Your task to perform on an android device: Open the calendar app, open the side menu, and click the "Day" option Image 0: 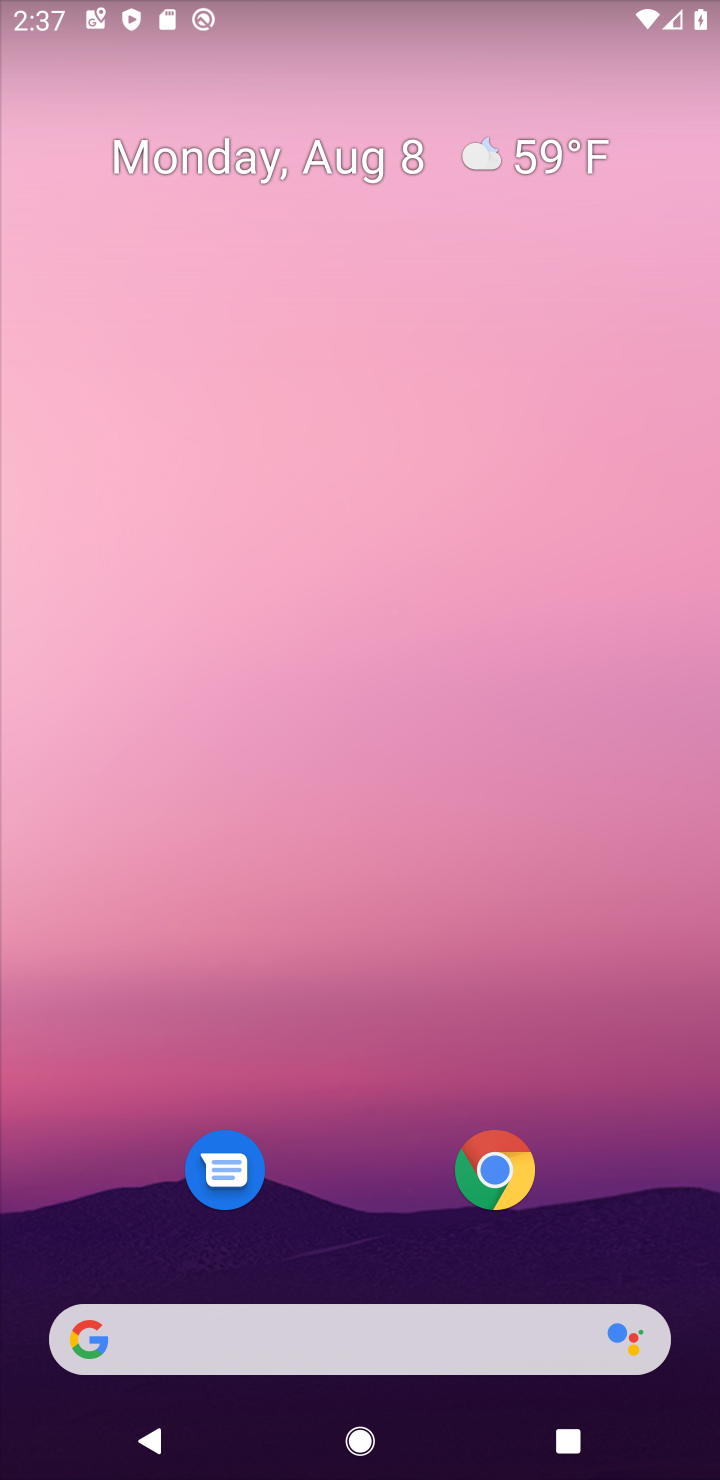
Step 0: drag from (348, 1142) to (435, 277)
Your task to perform on an android device: Open the calendar app, open the side menu, and click the "Day" option Image 1: 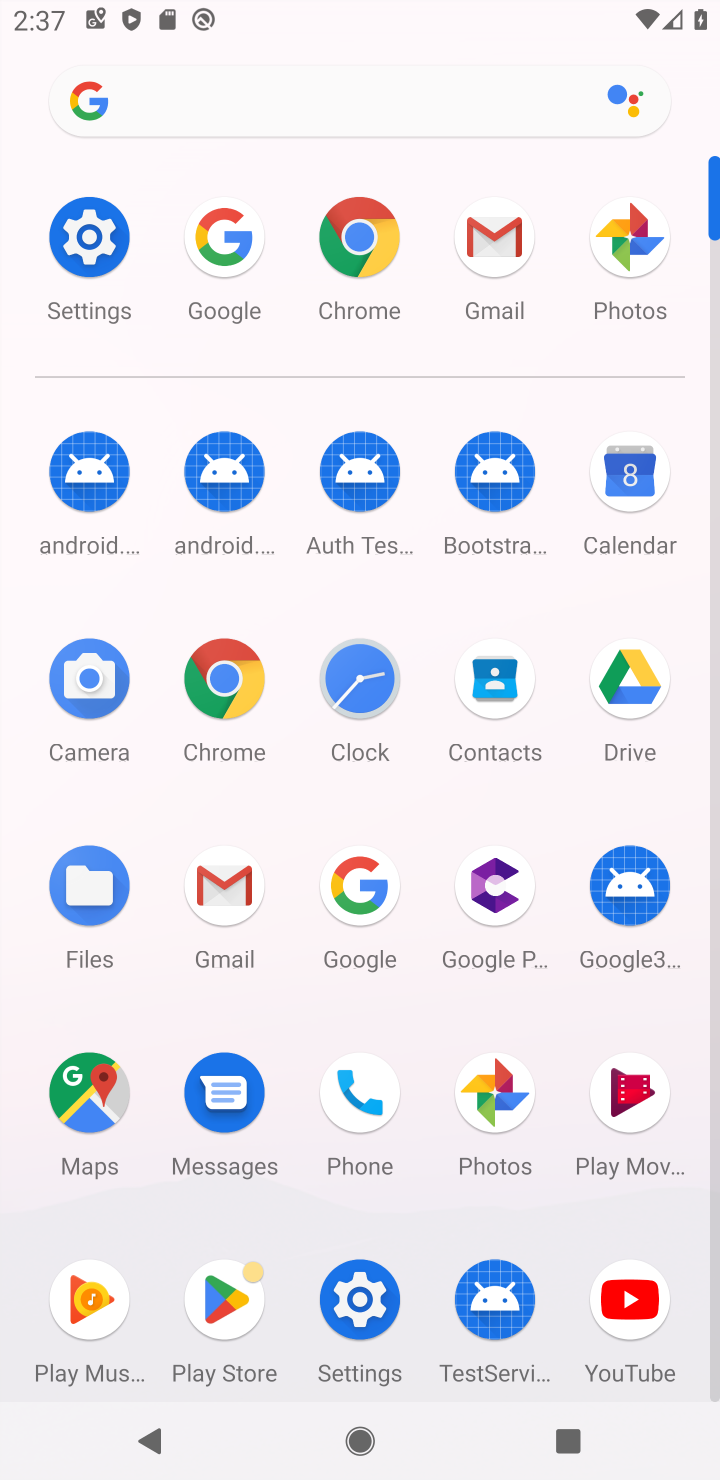
Step 1: click (610, 480)
Your task to perform on an android device: Open the calendar app, open the side menu, and click the "Day" option Image 2: 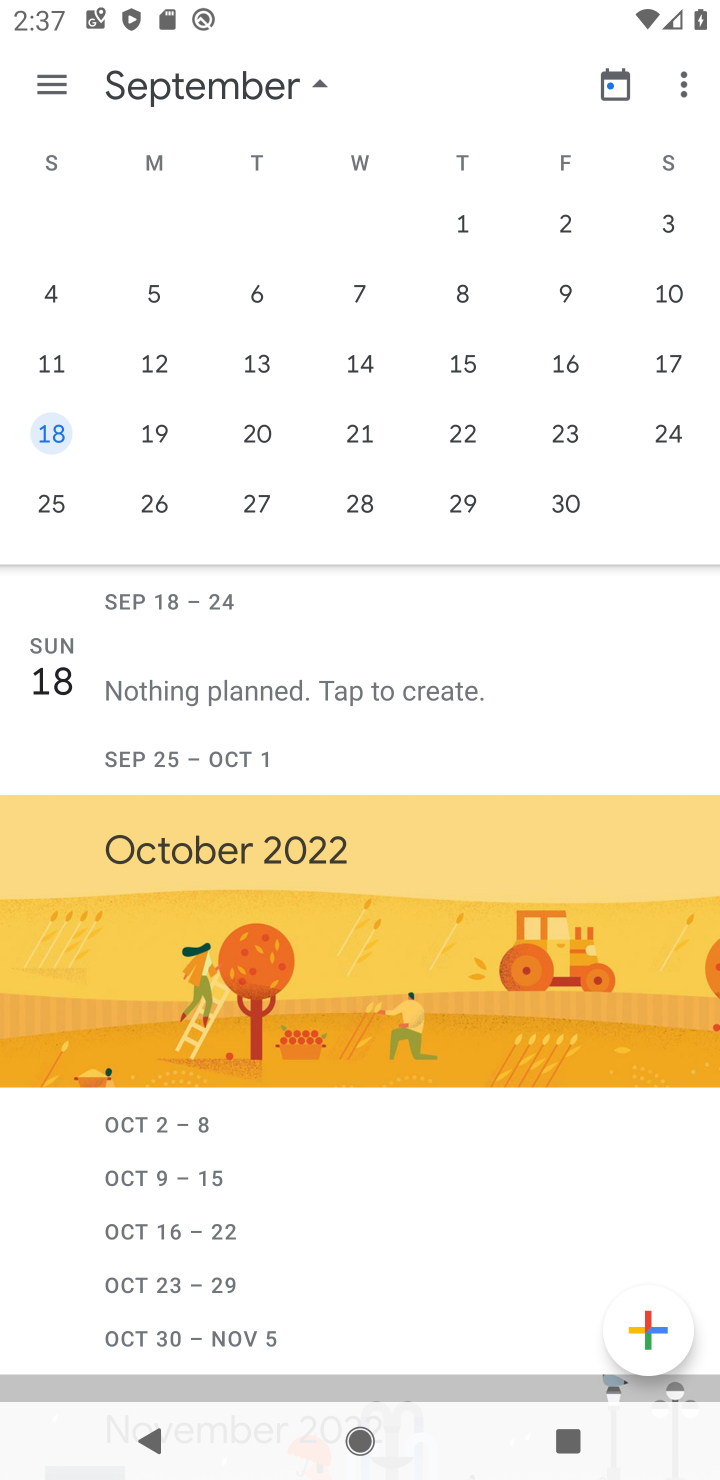
Step 2: click (45, 95)
Your task to perform on an android device: Open the calendar app, open the side menu, and click the "Day" option Image 3: 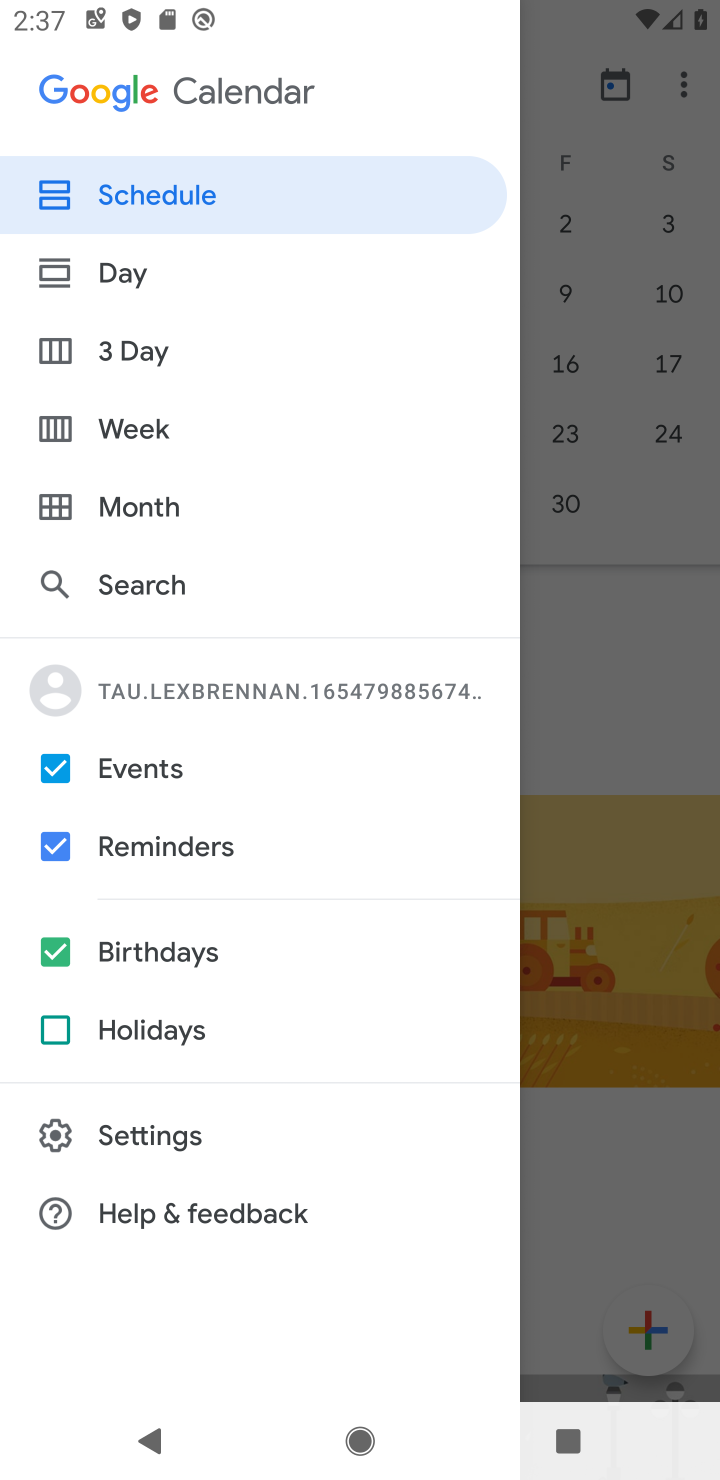
Step 3: click (107, 251)
Your task to perform on an android device: Open the calendar app, open the side menu, and click the "Day" option Image 4: 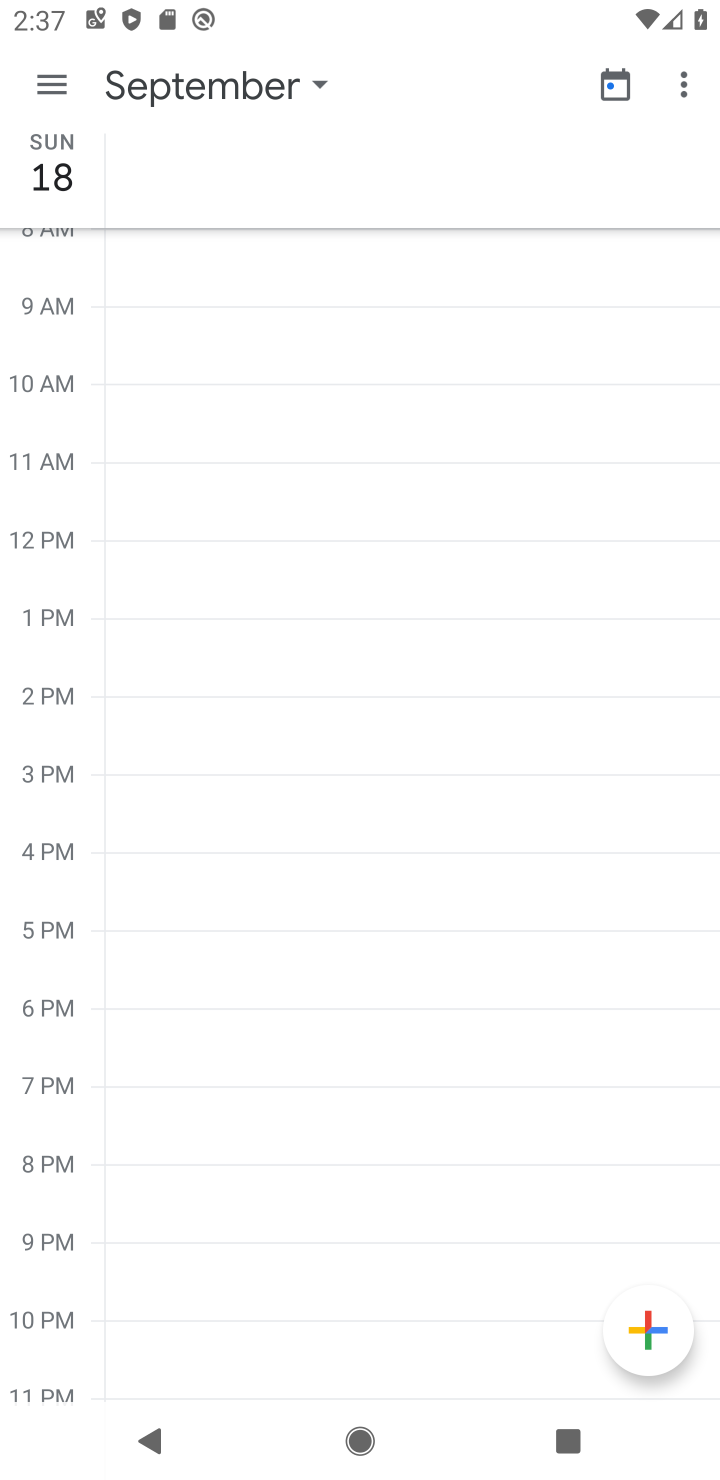
Step 4: click (55, 88)
Your task to perform on an android device: Open the calendar app, open the side menu, and click the "Day" option Image 5: 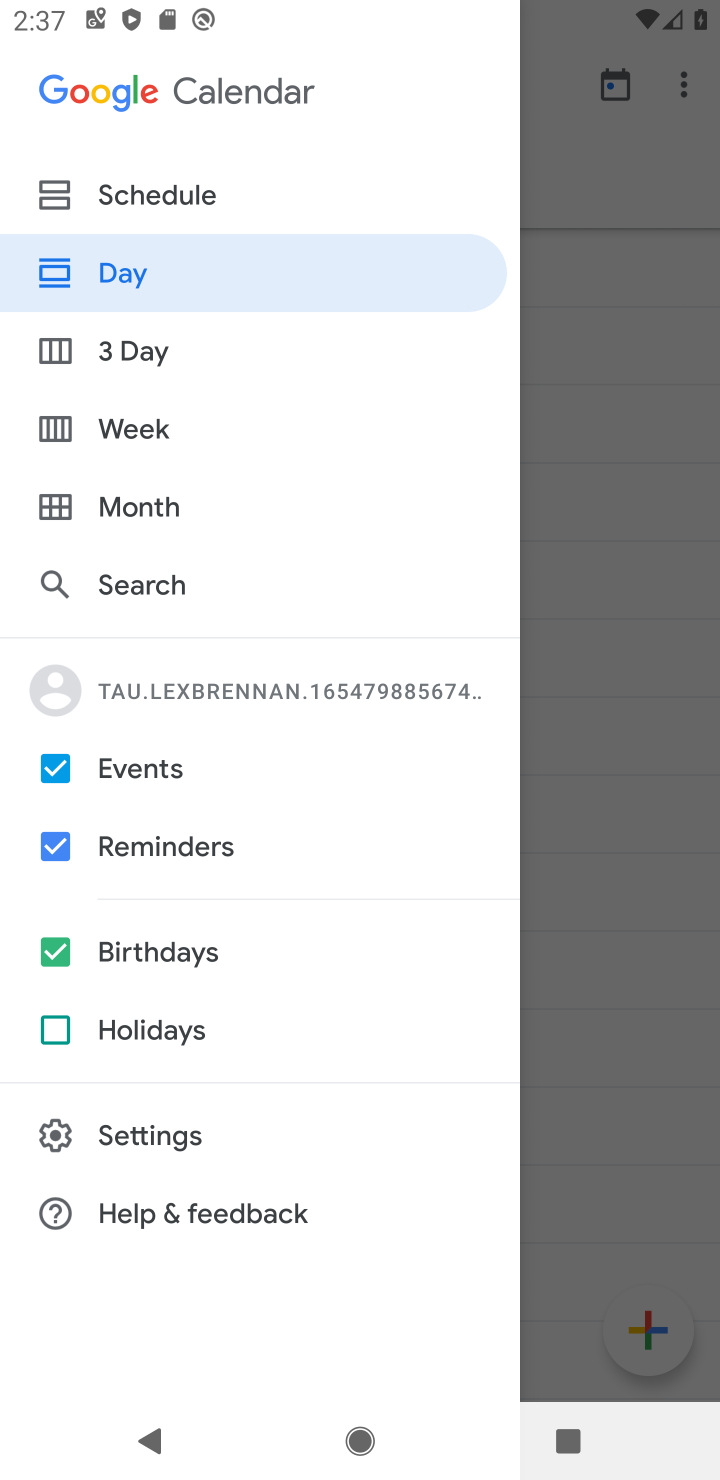
Step 5: task complete